Your task to perform on an android device: Open Google Chrome and open the bookmarks view Image 0: 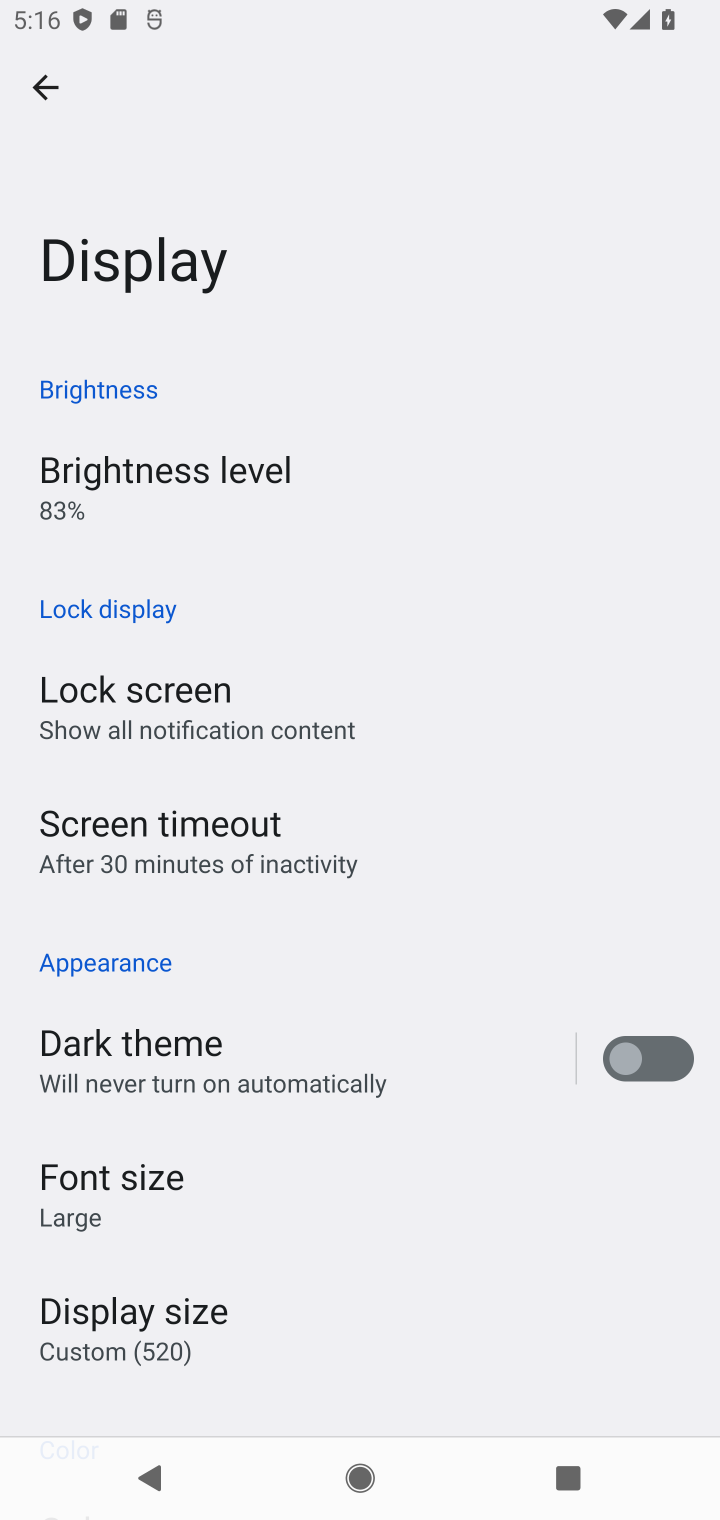
Step 0: press home button
Your task to perform on an android device: Open Google Chrome and open the bookmarks view Image 1: 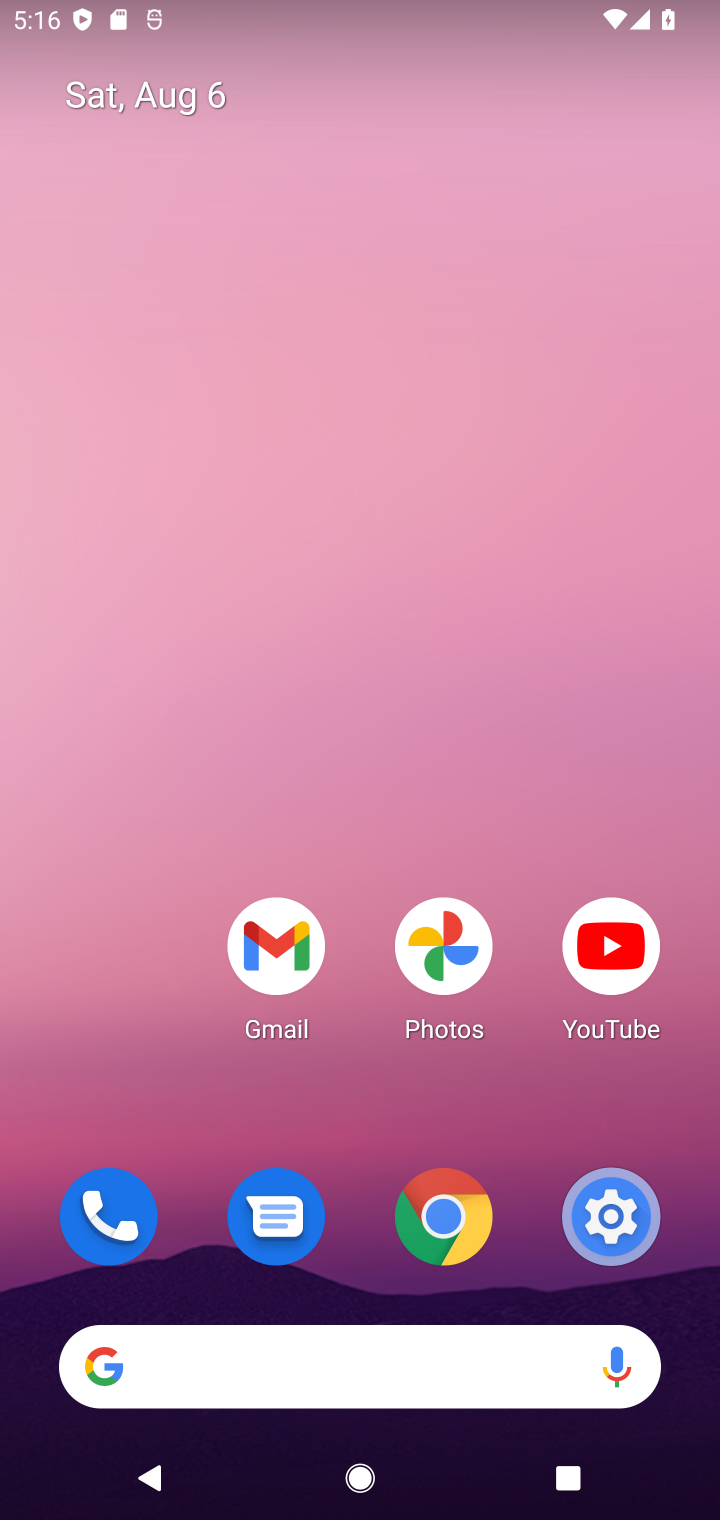
Step 1: drag from (126, 959) to (350, 243)
Your task to perform on an android device: Open Google Chrome and open the bookmarks view Image 2: 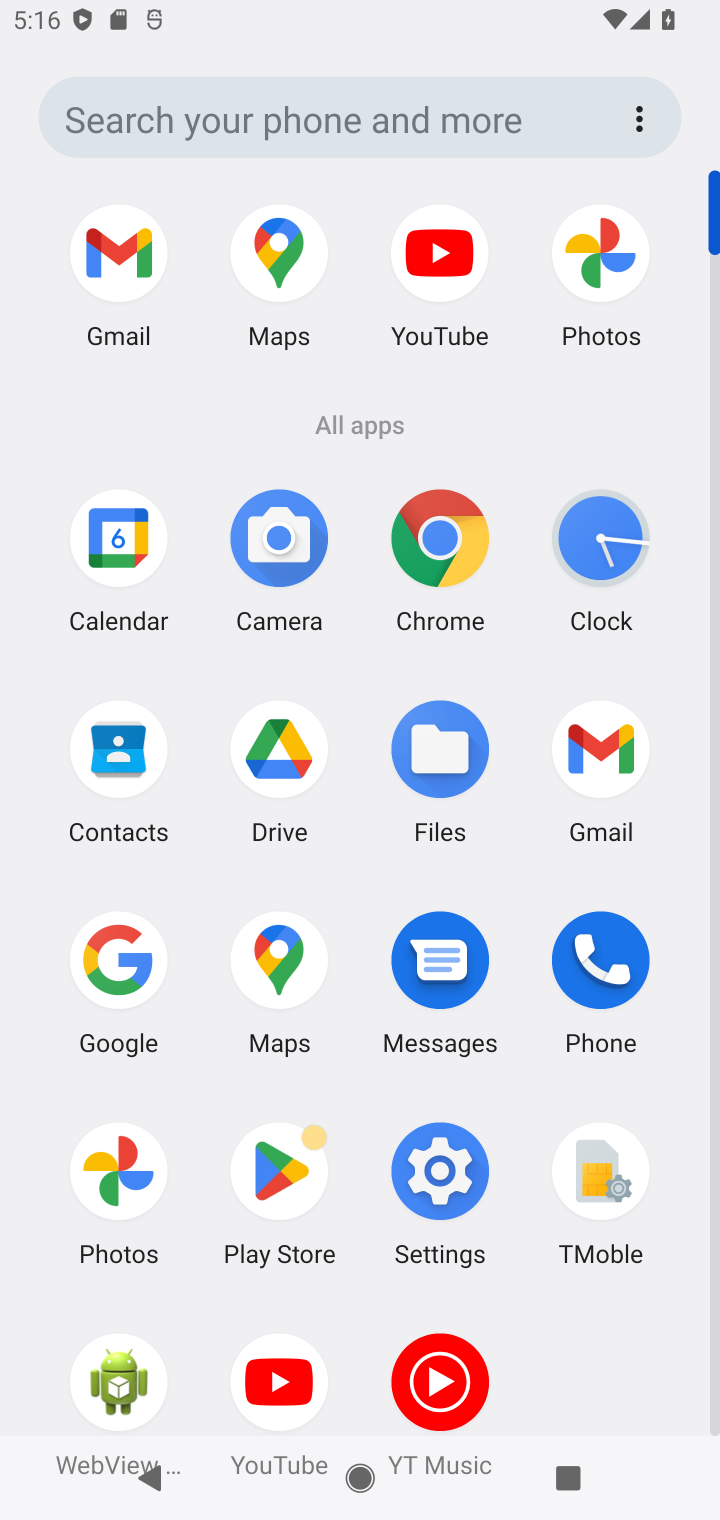
Step 2: click (444, 553)
Your task to perform on an android device: Open Google Chrome and open the bookmarks view Image 3: 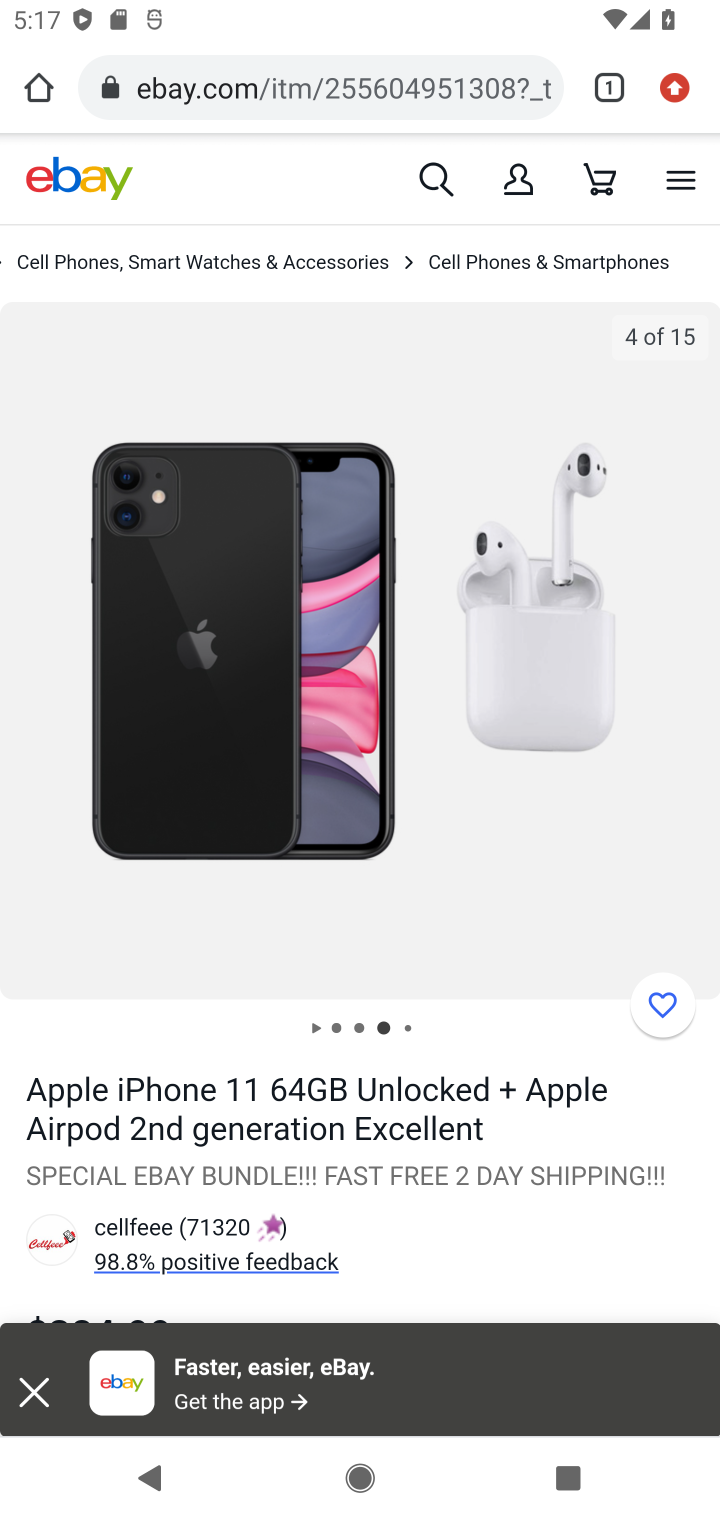
Step 3: task complete